Your task to perform on an android device: toggle sleep mode Image 0: 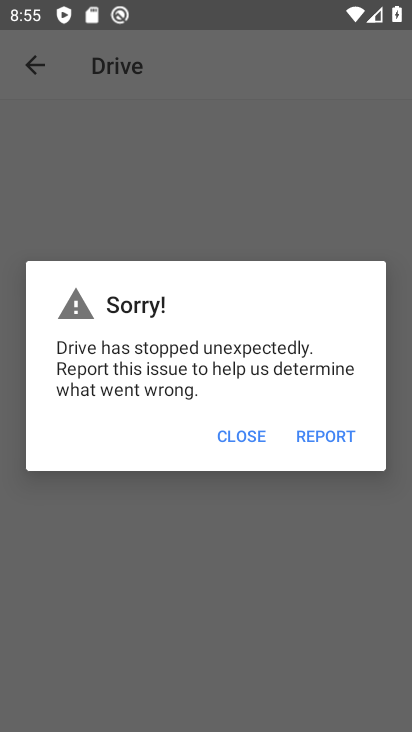
Step 0: press home button
Your task to perform on an android device: toggle sleep mode Image 1: 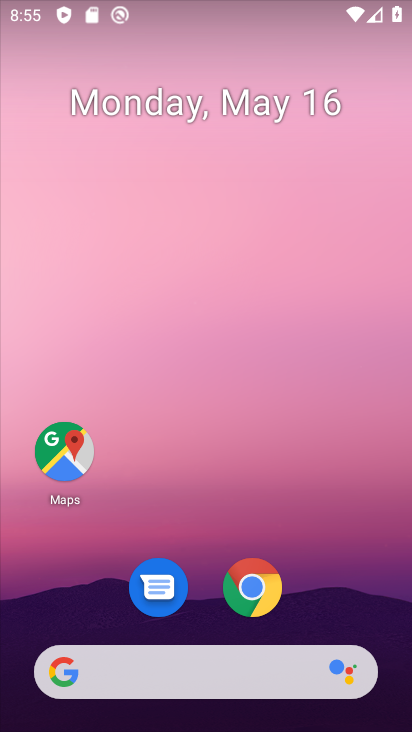
Step 1: drag from (56, 639) to (195, 82)
Your task to perform on an android device: toggle sleep mode Image 2: 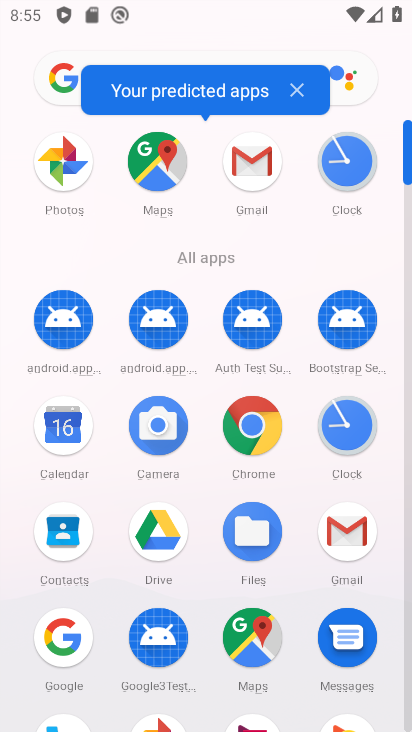
Step 2: drag from (222, 590) to (270, 295)
Your task to perform on an android device: toggle sleep mode Image 3: 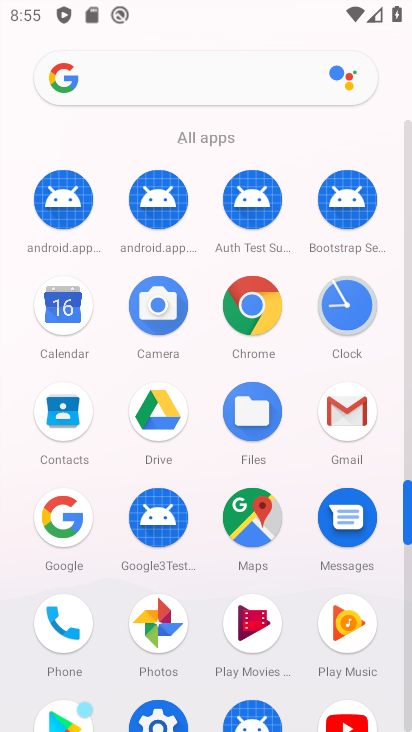
Step 3: click (167, 717)
Your task to perform on an android device: toggle sleep mode Image 4: 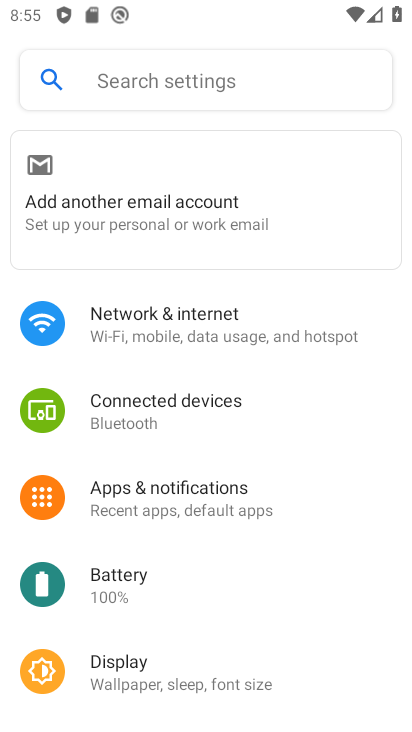
Step 4: click (161, 667)
Your task to perform on an android device: toggle sleep mode Image 5: 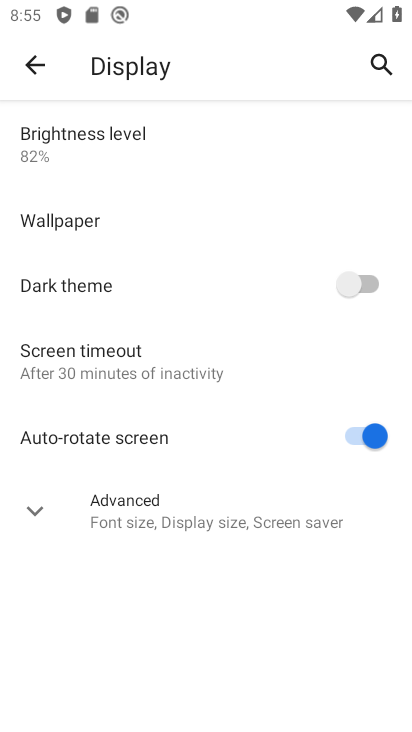
Step 5: click (225, 529)
Your task to perform on an android device: toggle sleep mode Image 6: 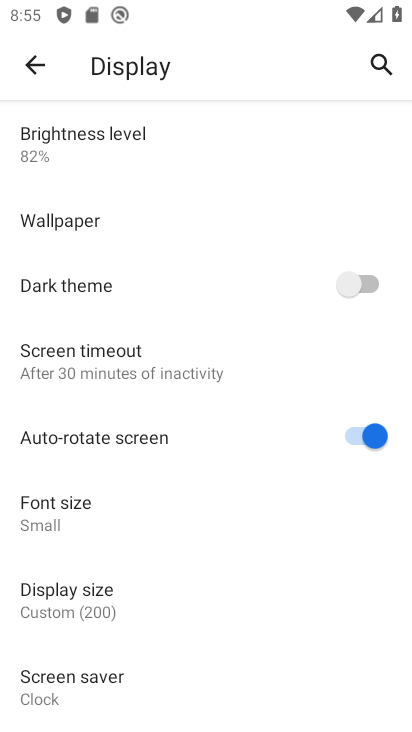
Step 6: task complete